Your task to perform on an android device: manage bookmarks in the chrome app Image 0: 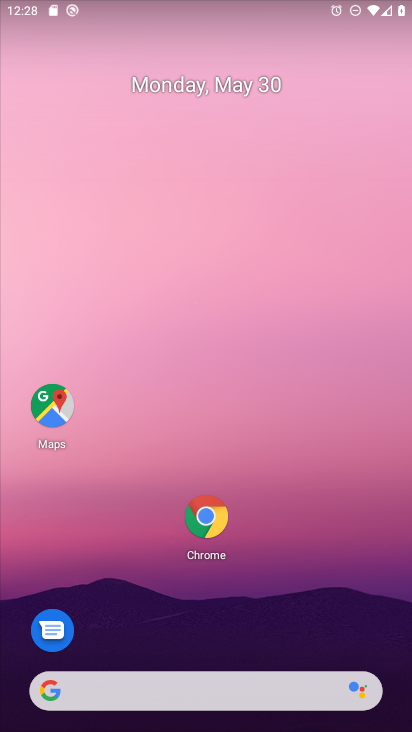
Step 0: press home button
Your task to perform on an android device: manage bookmarks in the chrome app Image 1: 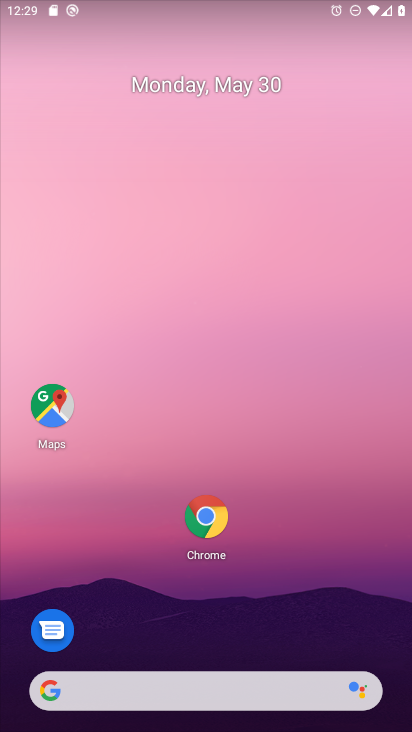
Step 1: click (205, 520)
Your task to perform on an android device: manage bookmarks in the chrome app Image 2: 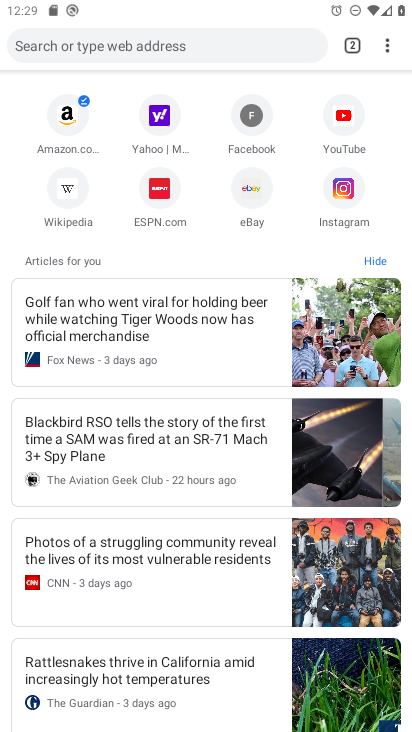
Step 2: task complete